Your task to perform on an android device: star an email in the gmail app Image 0: 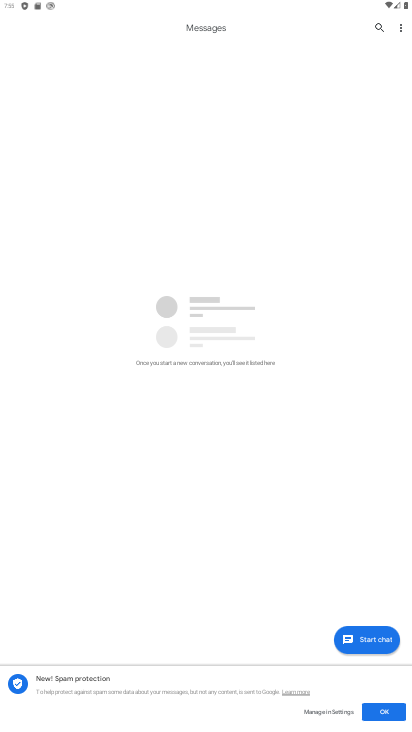
Step 0: click (136, 685)
Your task to perform on an android device: star an email in the gmail app Image 1: 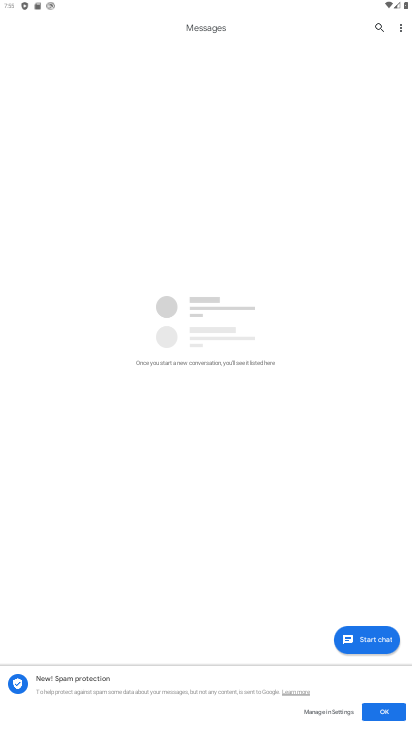
Step 1: press home button
Your task to perform on an android device: star an email in the gmail app Image 2: 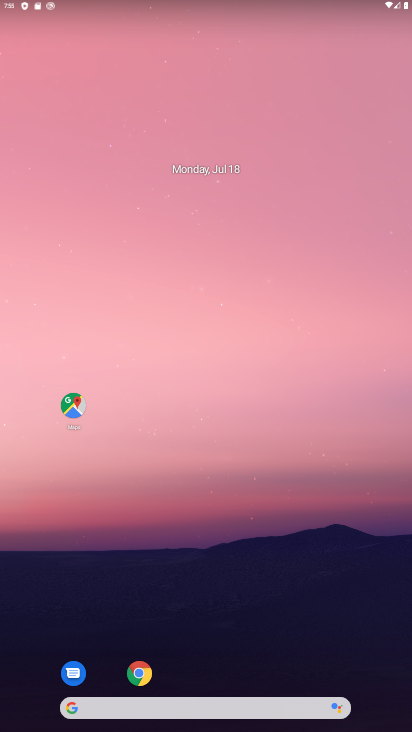
Step 2: drag from (179, 671) to (142, 284)
Your task to perform on an android device: star an email in the gmail app Image 3: 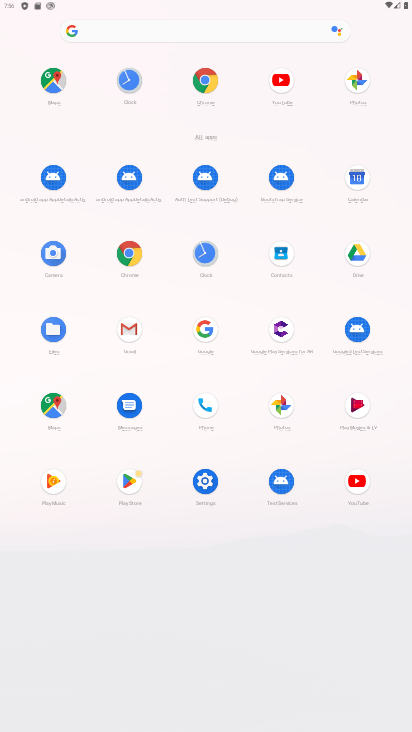
Step 3: click (133, 336)
Your task to perform on an android device: star an email in the gmail app Image 4: 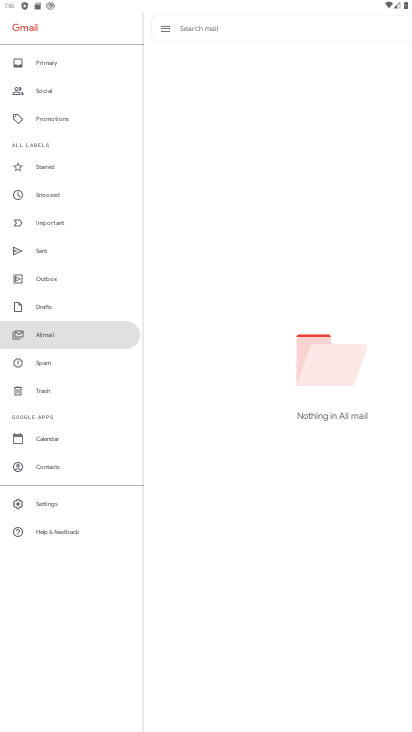
Step 4: click (113, 336)
Your task to perform on an android device: star an email in the gmail app Image 5: 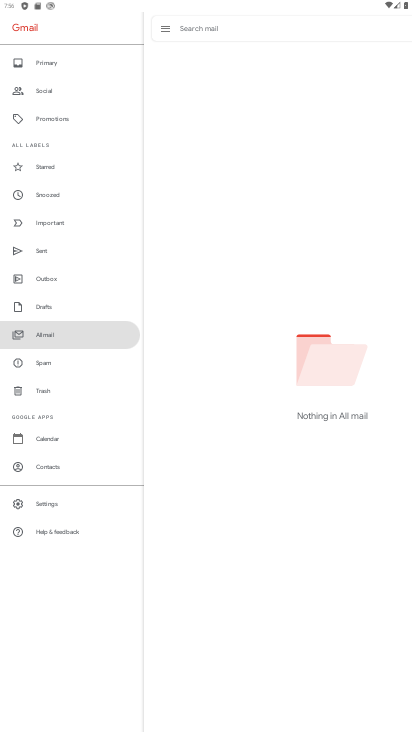
Step 5: task complete